Your task to perform on an android device: What's the weather going to be this weekend? Image 0: 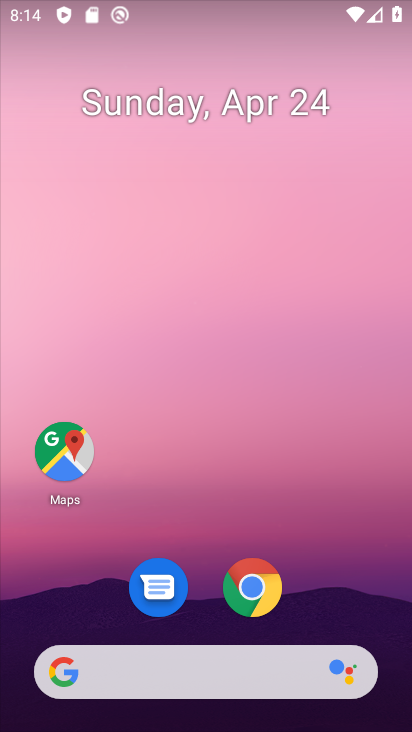
Step 0: drag from (197, 587) to (279, 21)
Your task to perform on an android device: What's the weather going to be this weekend? Image 1: 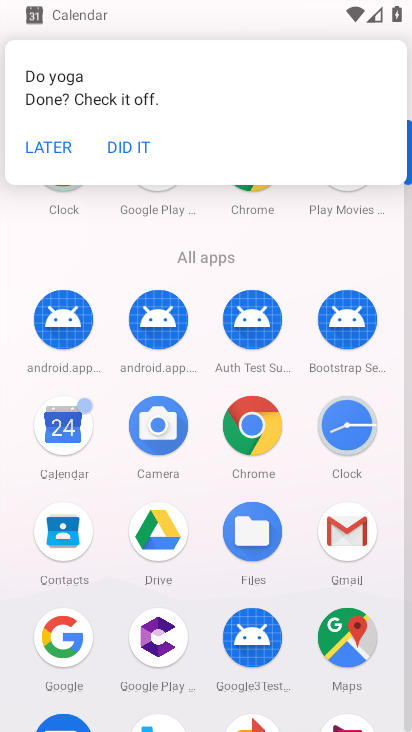
Step 1: click (58, 161)
Your task to perform on an android device: What's the weather going to be this weekend? Image 2: 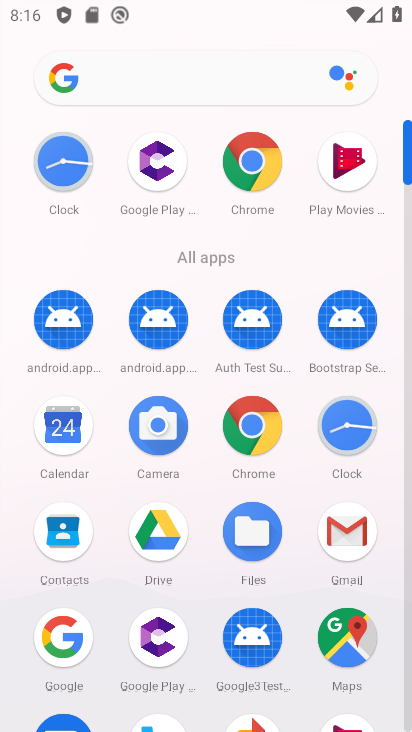
Step 2: press back button
Your task to perform on an android device: What's the weather going to be this weekend? Image 3: 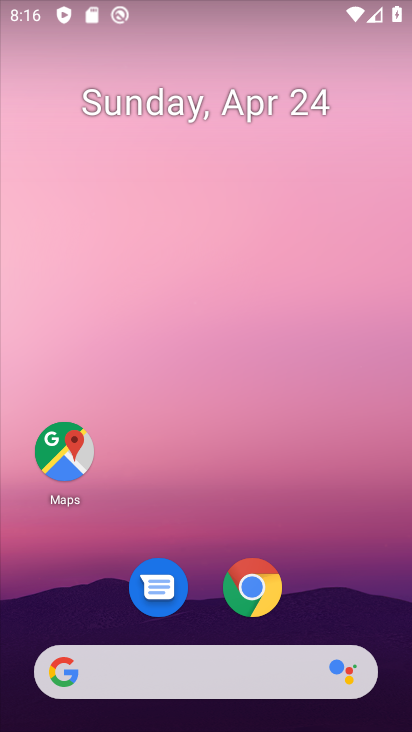
Step 3: drag from (150, 488) to (297, 77)
Your task to perform on an android device: What's the weather going to be this weekend? Image 4: 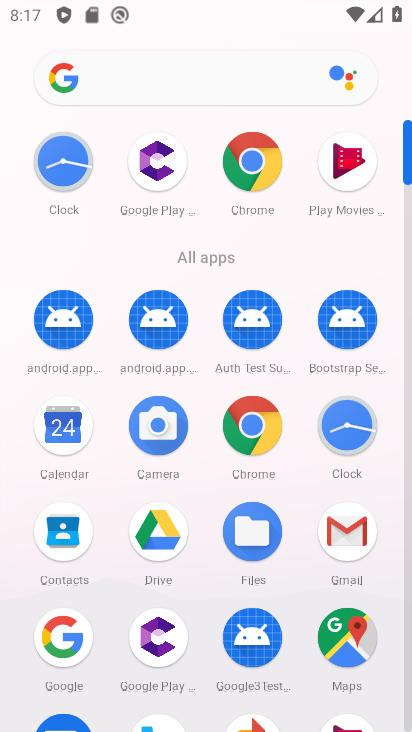
Step 4: click (150, 75)
Your task to perform on an android device: What's the weather going to be this weekend? Image 5: 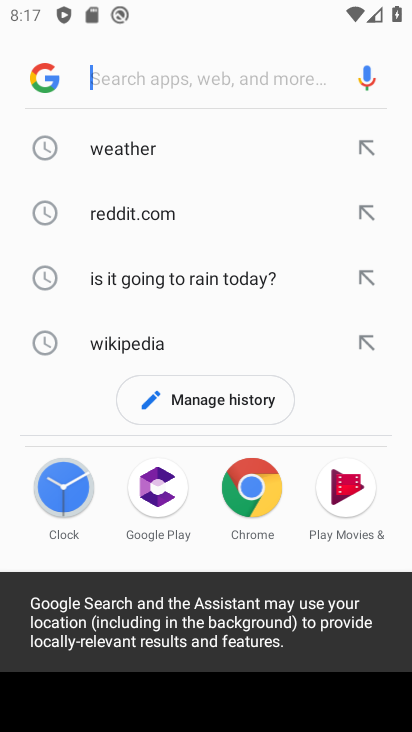
Step 5: click (127, 150)
Your task to perform on an android device: What's the weather going to be this weekend? Image 6: 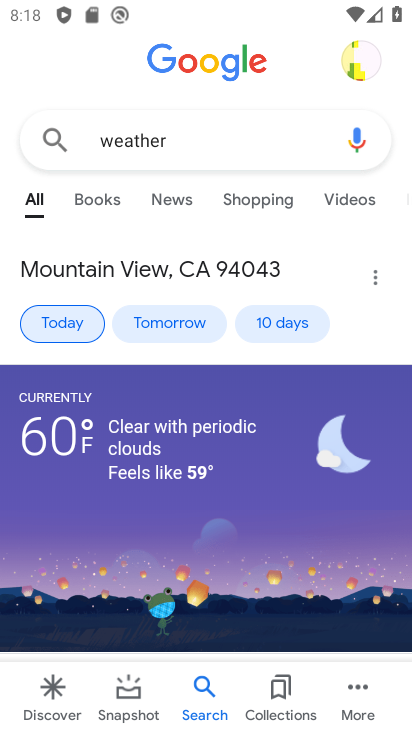
Step 6: click (294, 314)
Your task to perform on an android device: What's the weather going to be this weekend? Image 7: 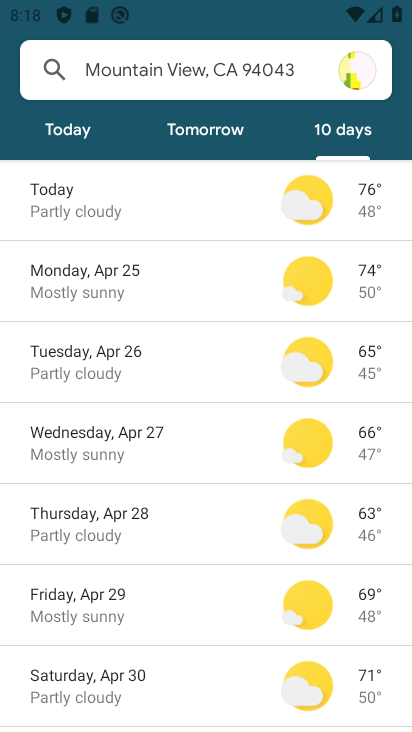
Step 7: task complete